Your task to perform on an android device: turn smart compose on in the gmail app Image 0: 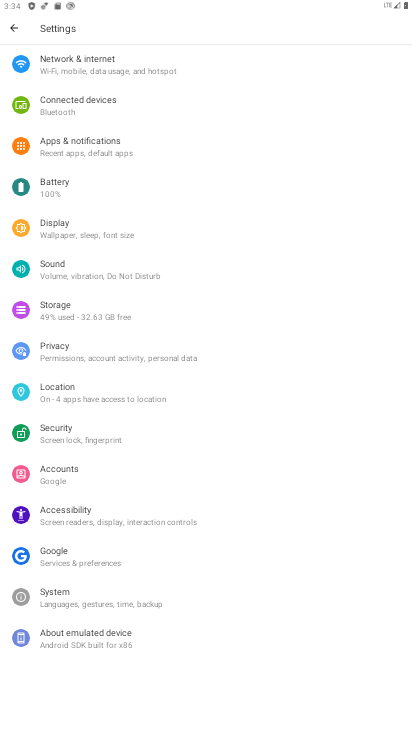
Step 0: press home button
Your task to perform on an android device: turn smart compose on in the gmail app Image 1: 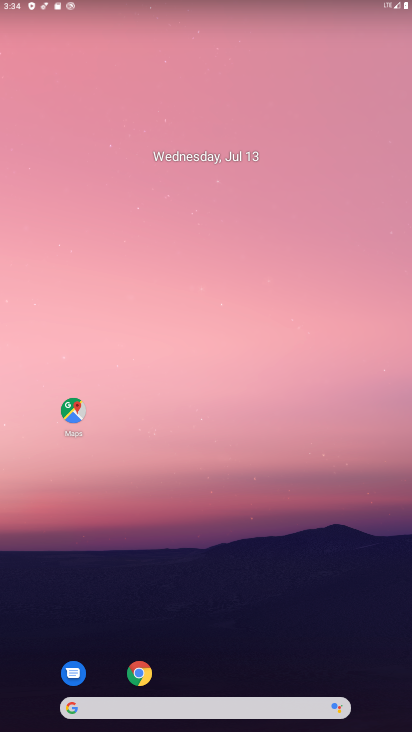
Step 1: drag from (211, 702) to (200, 129)
Your task to perform on an android device: turn smart compose on in the gmail app Image 2: 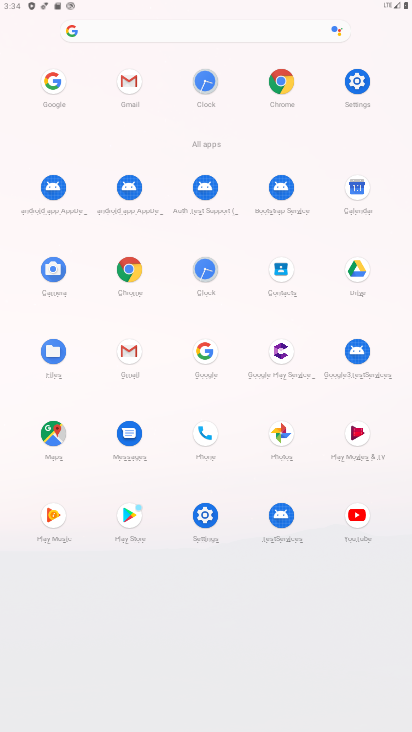
Step 2: click (132, 81)
Your task to perform on an android device: turn smart compose on in the gmail app Image 3: 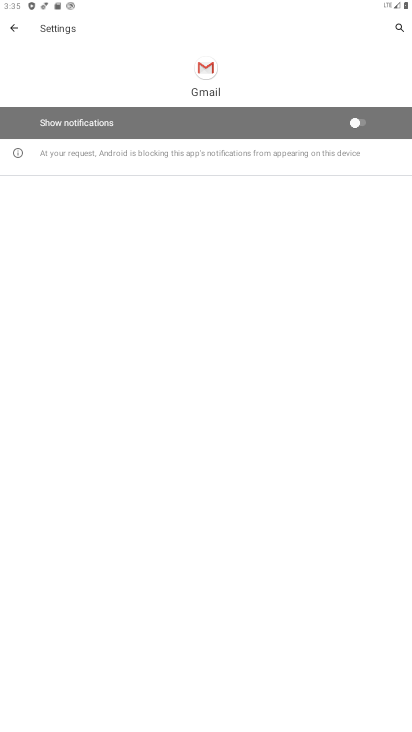
Step 3: press back button
Your task to perform on an android device: turn smart compose on in the gmail app Image 4: 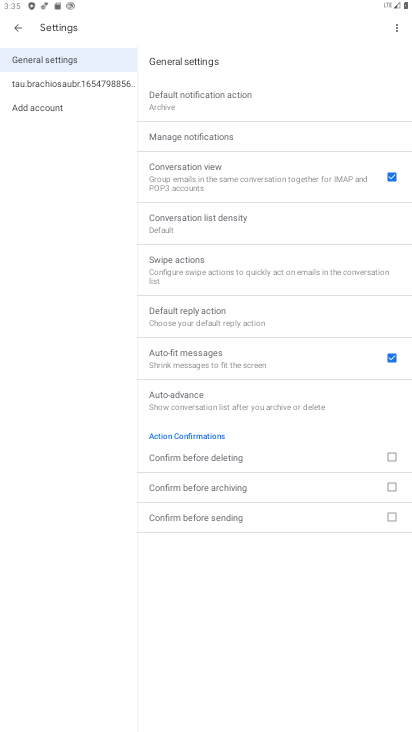
Step 4: click (114, 88)
Your task to perform on an android device: turn smart compose on in the gmail app Image 5: 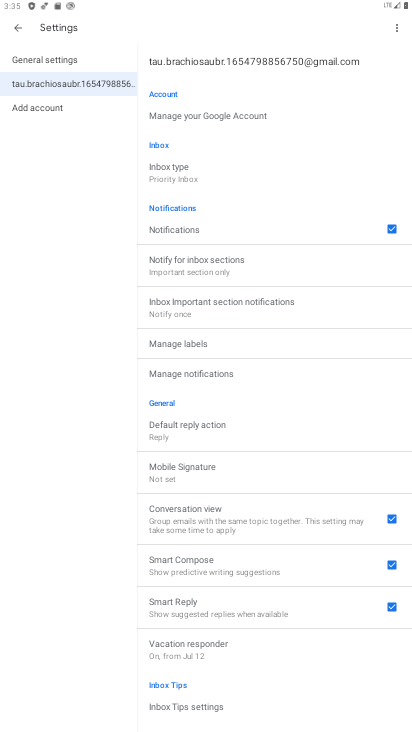
Step 5: task complete